Your task to perform on an android device: Open Google Chrome Image 0: 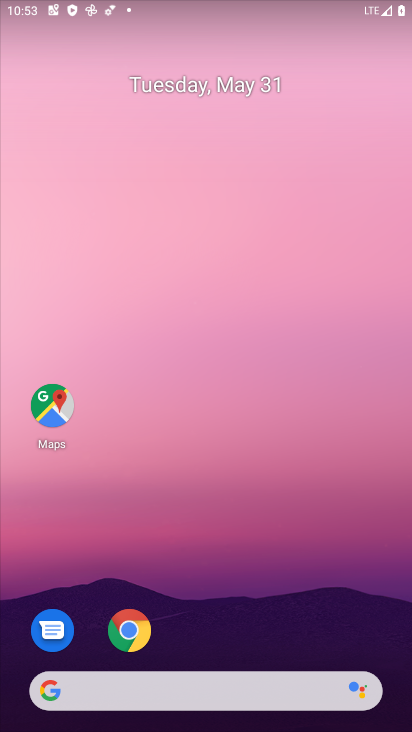
Step 0: click (130, 638)
Your task to perform on an android device: Open Google Chrome Image 1: 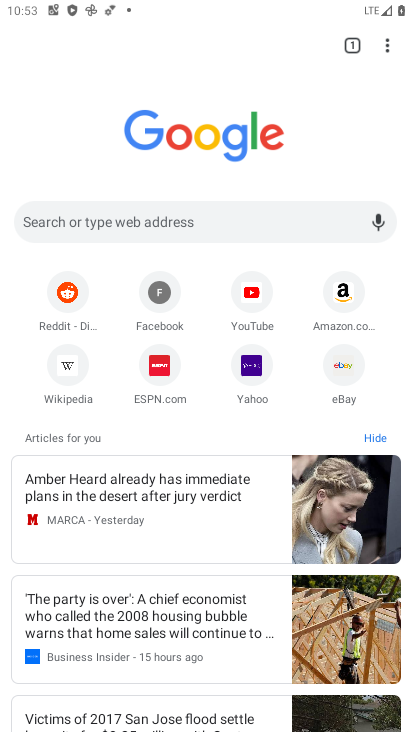
Step 1: task complete